Your task to perform on an android device: What is the recent news? Image 0: 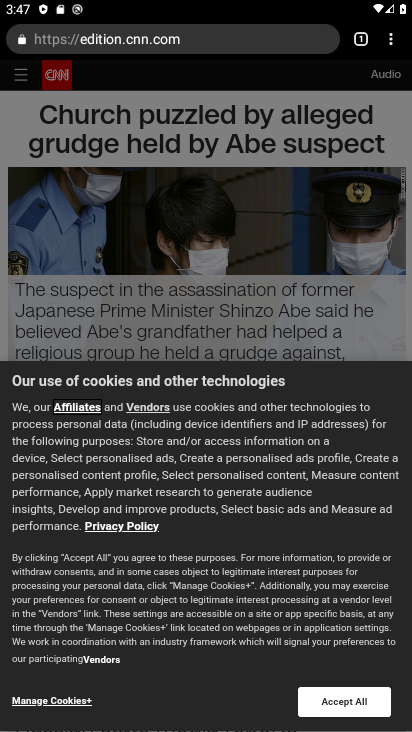
Step 0: press home button
Your task to perform on an android device: What is the recent news? Image 1: 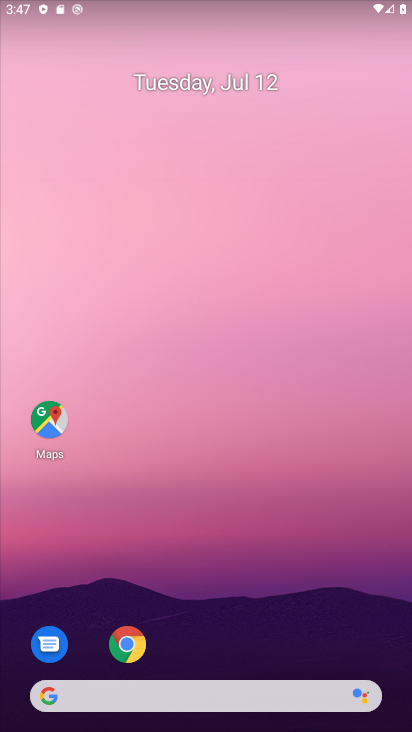
Step 1: task complete